Your task to perform on an android device: turn notification dots on Image 0: 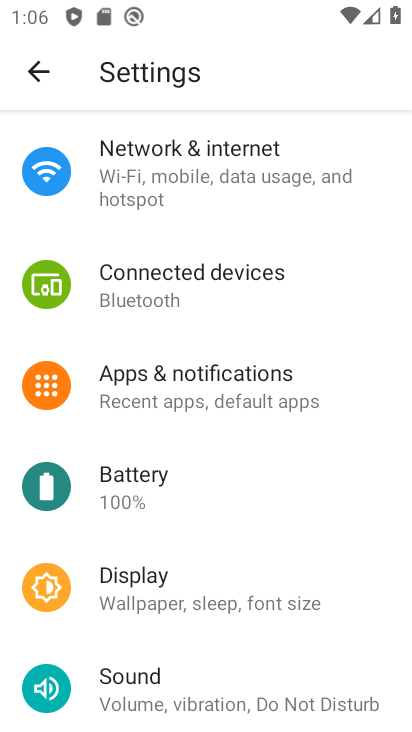
Step 0: click (229, 377)
Your task to perform on an android device: turn notification dots on Image 1: 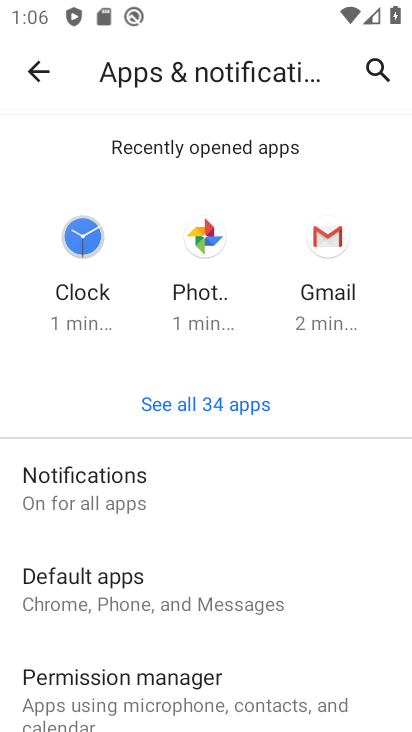
Step 1: click (202, 488)
Your task to perform on an android device: turn notification dots on Image 2: 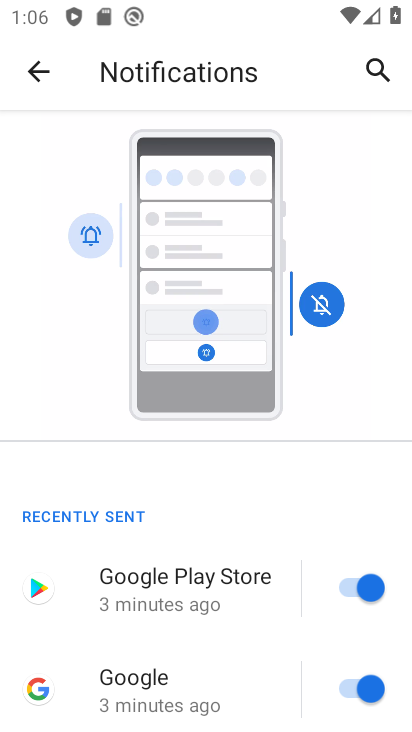
Step 2: drag from (190, 712) to (247, 238)
Your task to perform on an android device: turn notification dots on Image 3: 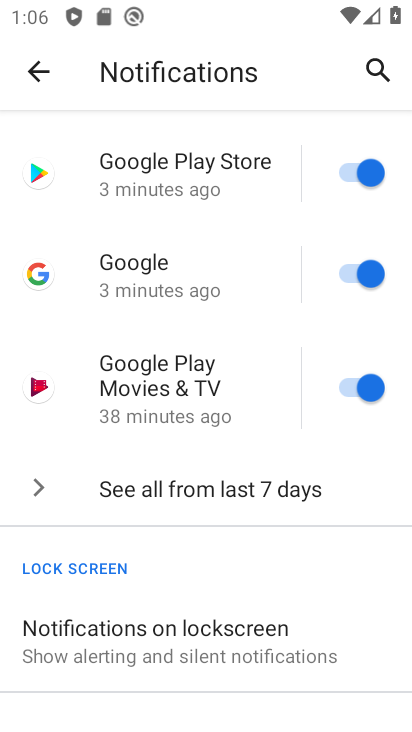
Step 3: drag from (205, 624) to (276, 204)
Your task to perform on an android device: turn notification dots on Image 4: 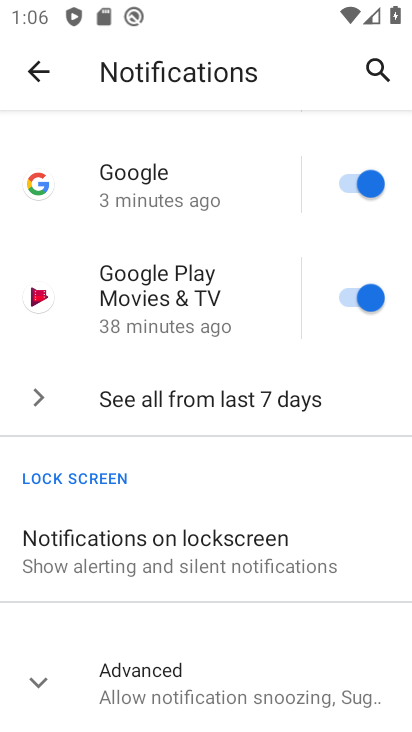
Step 4: click (184, 706)
Your task to perform on an android device: turn notification dots on Image 5: 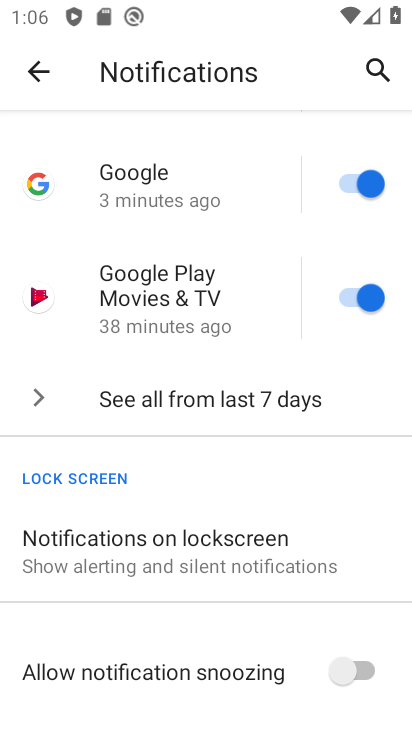
Step 5: drag from (183, 669) to (210, 159)
Your task to perform on an android device: turn notification dots on Image 6: 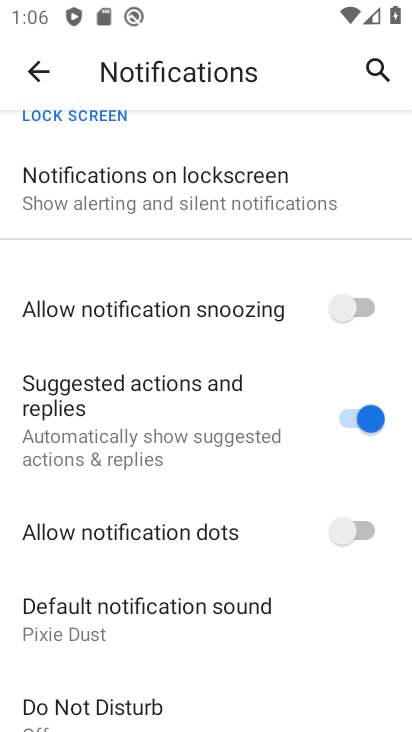
Step 6: click (351, 545)
Your task to perform on an android device: turn notification dots on Image 7: 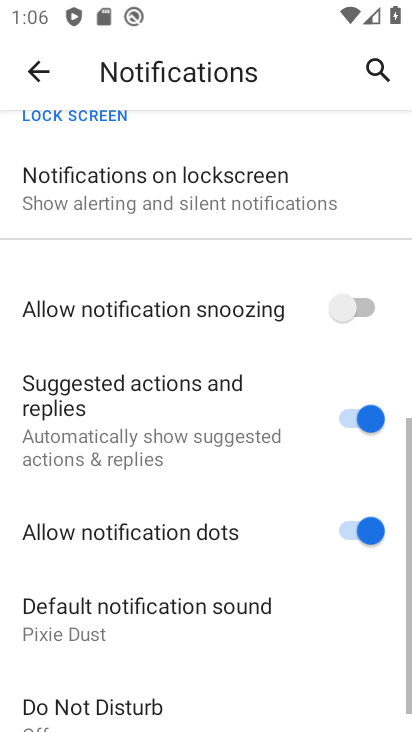
Step 7: task complete